Your task to perform on an android device: Clear the shopping cart on walmart. Add "usb-c to usb-b" to the cart on walmart, then select checkout. Image 0: 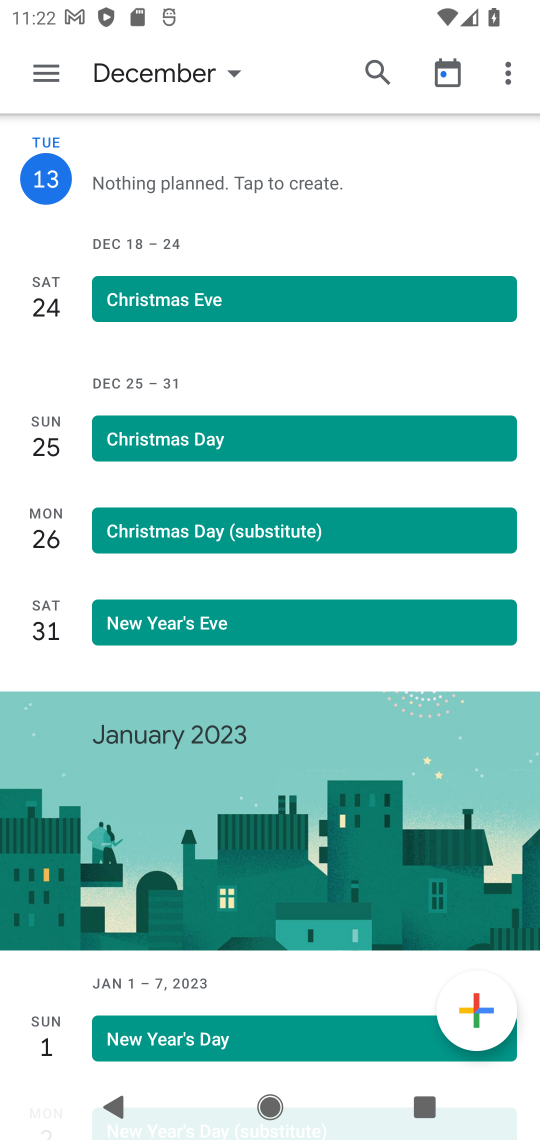
Step 0: press home button
Your task to perform on an android device: Clear the shopping cart on walmart. Add "usb-c to usb-b" to the cart on walmart, then select checkout. Image 1: 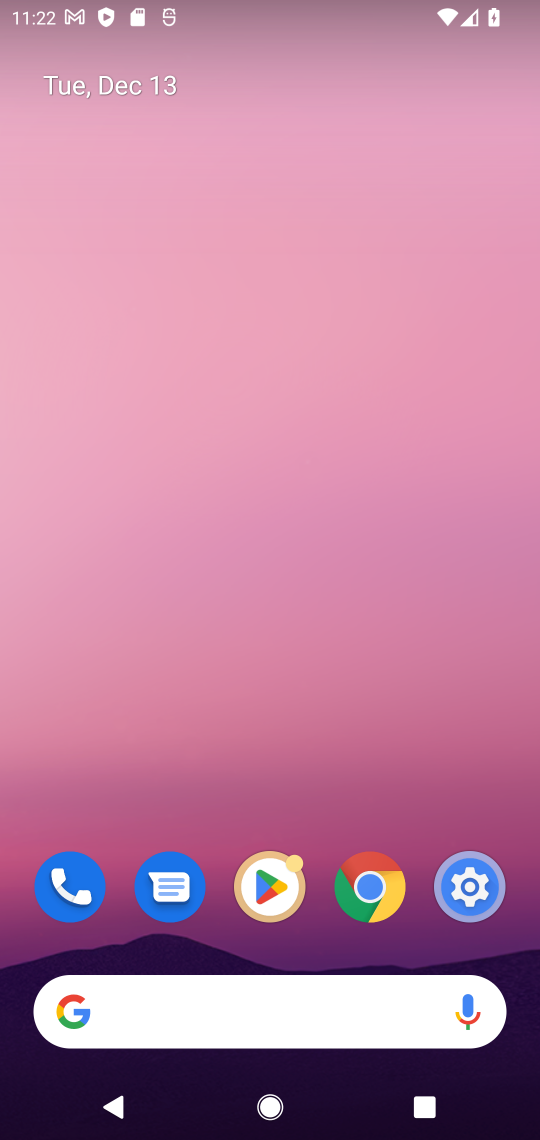
Step 1: drag from (295, 966) to (354, 571)
Your task to perform on an android device: Clear the shopping cart on walmart. Add "usb-c to usb-b" to the cart on walmart, then select checkout. Image 2: 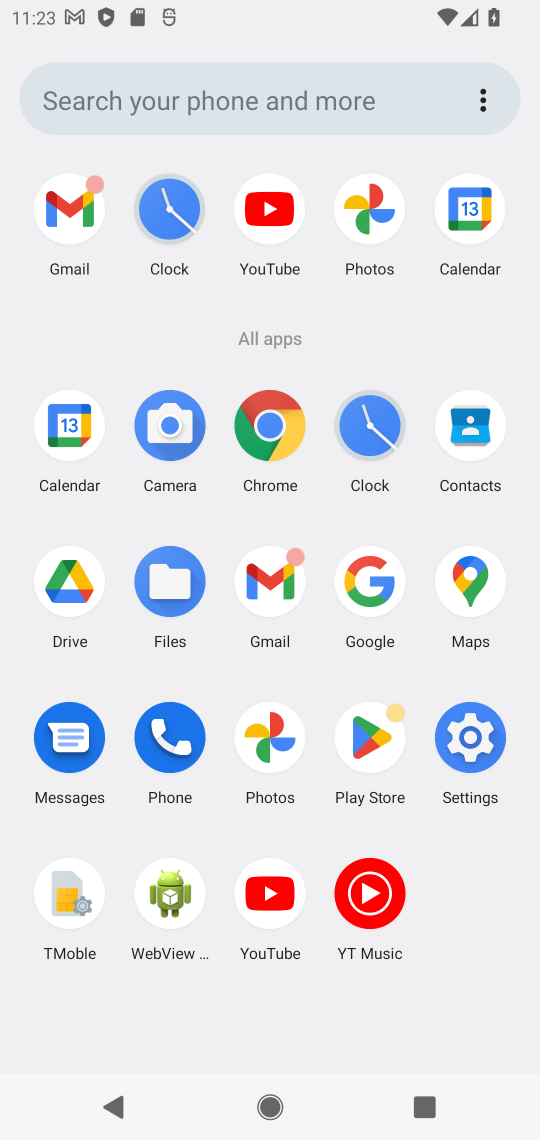
Step 2: click (382, 589)
Your task to perform on an android device: Clear the shopping cart on walmart. Add "usb-c to usb-b" to the cart on walmart, then select checkout. Image 3: 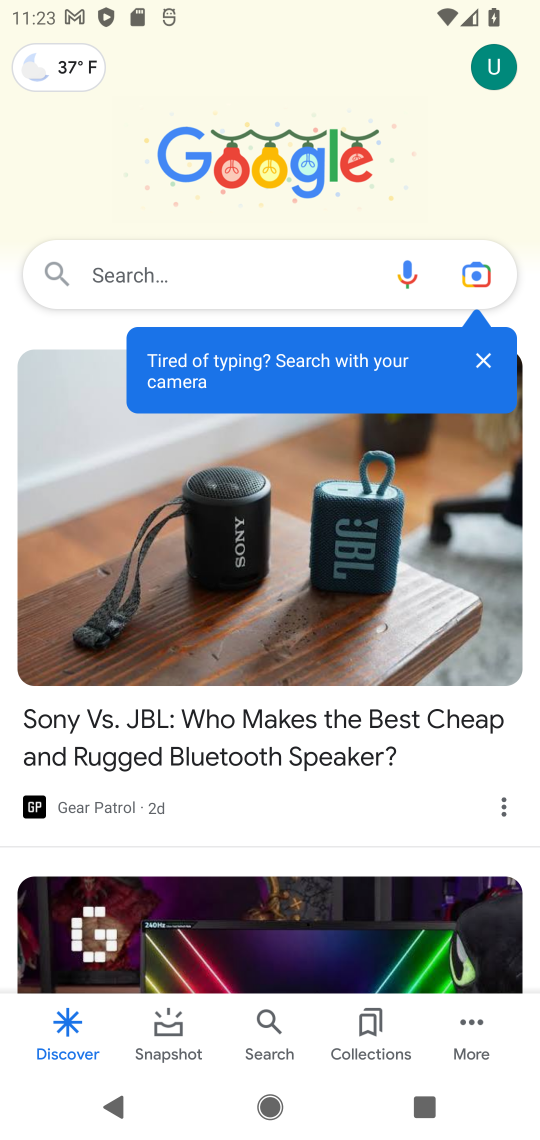
Step 3: click (152, 279)
Your task to perform on an android device: Clear the shopping cart on walmart. Add "usb-c to usb-b" to the cart on walmart, then select checkout. Image 4: 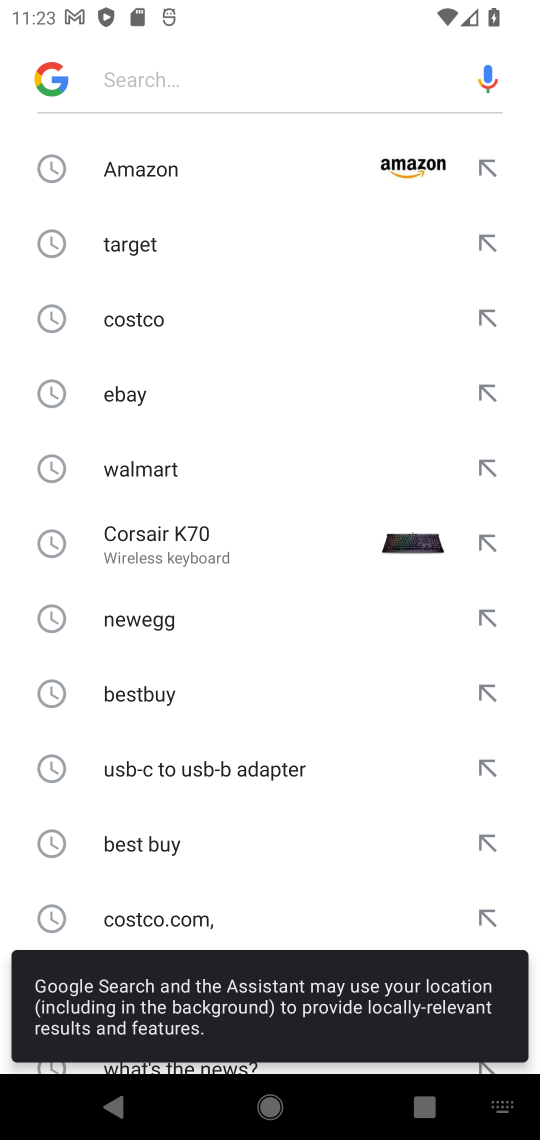
Step 4: click (138, 467)
Your task to perform on an android device: Clear the shopping cart on walmart. Add "usb-c to usb-b" to the cart on walmart, then select checkout. Image 5: 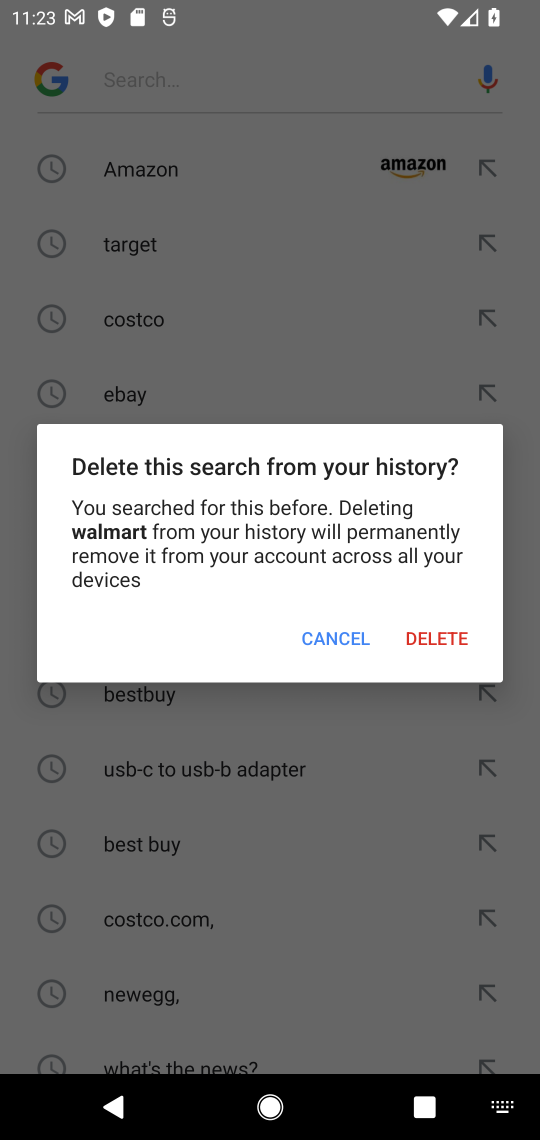
Step 5: click (308, 641)
Your task to perform on an android device: Clear the shopping cart on walmart. Add "usb-c to usb-b" to the cart on walmart, then select checkout. Image 6: 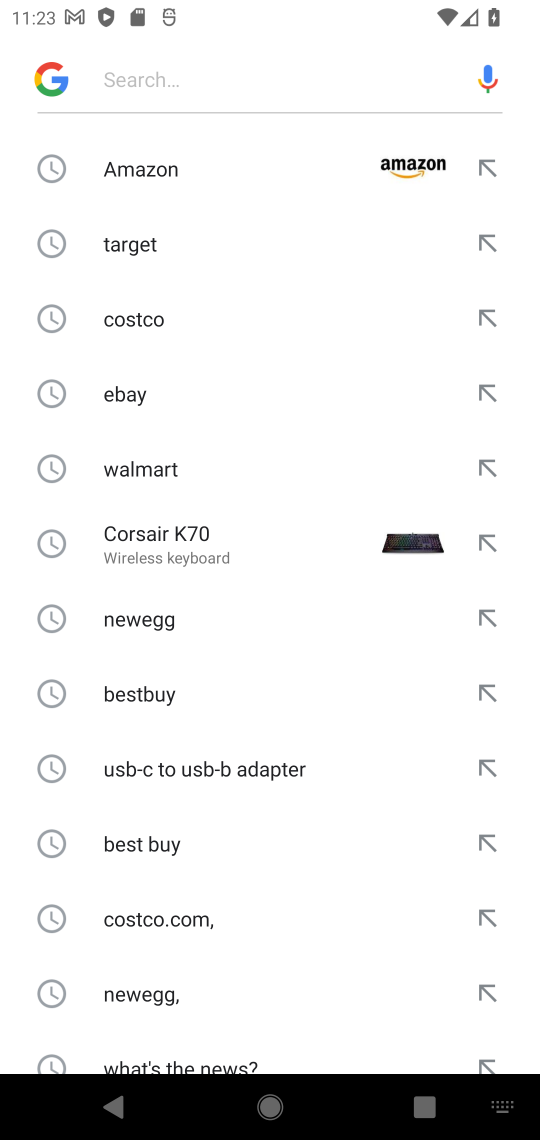
Step 6: click (139, 465)
Your task to perform on an android device: Clear the shopping cart on walmart. Add "usb-c to usb-b" to the cart on walmart, then select checkout. Image 7: 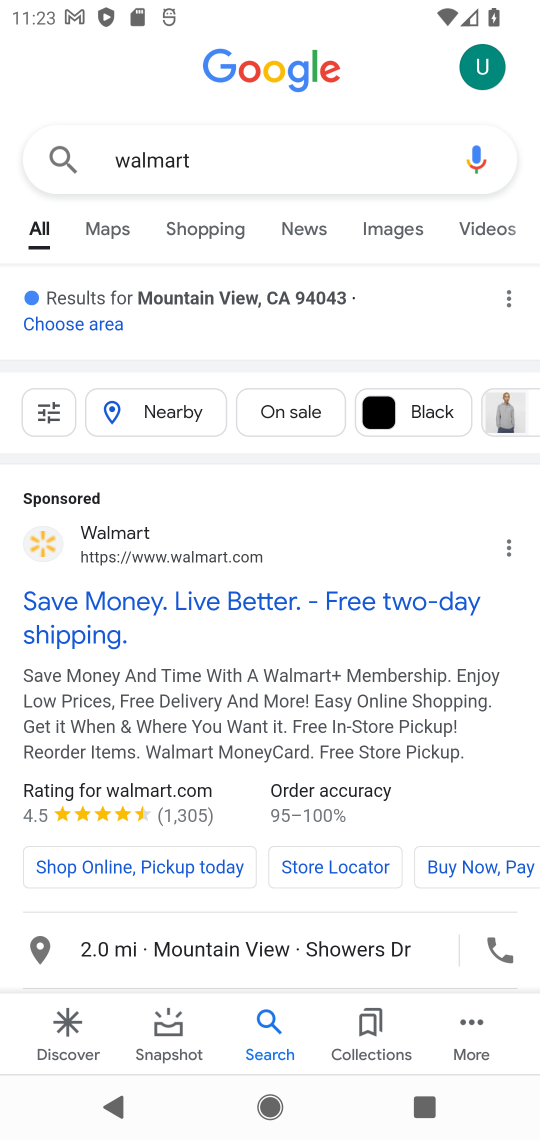
Step 7: click (126, 614)
Your task to perform on an android device: Clear the shopping cart on walmart. Add "usb-c to usb-b" to the cart on walmart, then select checkout. Image 8: 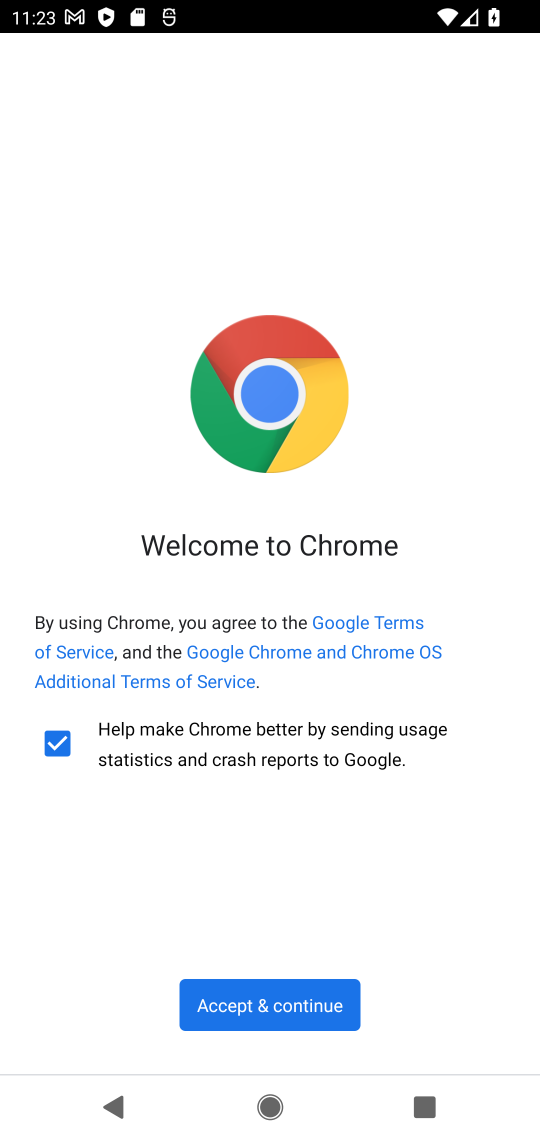
Step 8: click (291, 999)
Your task to perform on an android device: Clear the shopping cart on walmart. Add "usb-c to usb-b" to the cart on walmart, then select checkout. Image 9: 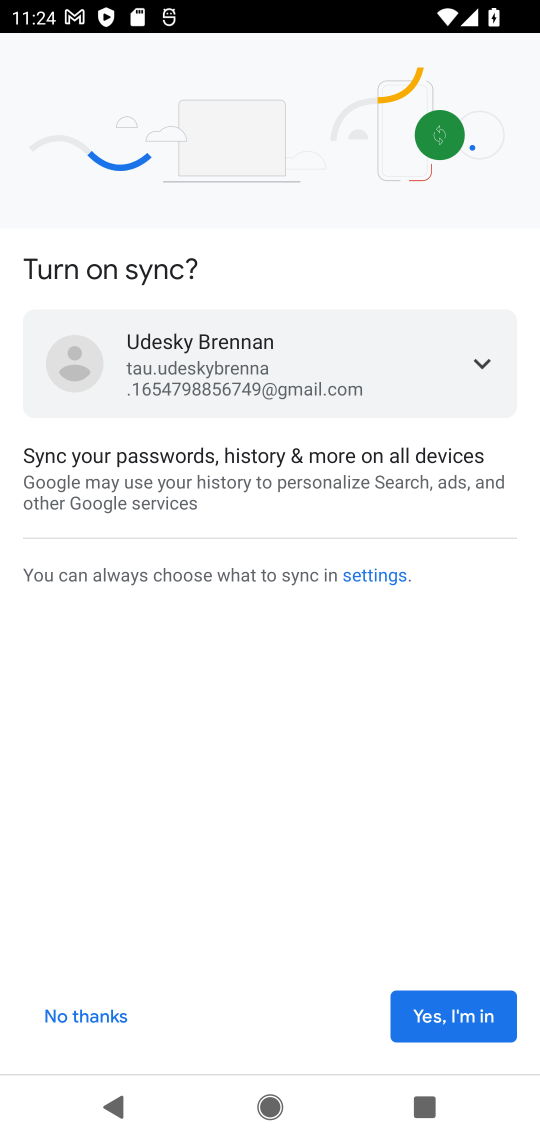
Step 9: click (482, 1015)
Your task to perform on an android device: Clear the shopping cart on walmart. Add "usb-c to usb-b" to the cart on walmart, then select checkout. Image 10: 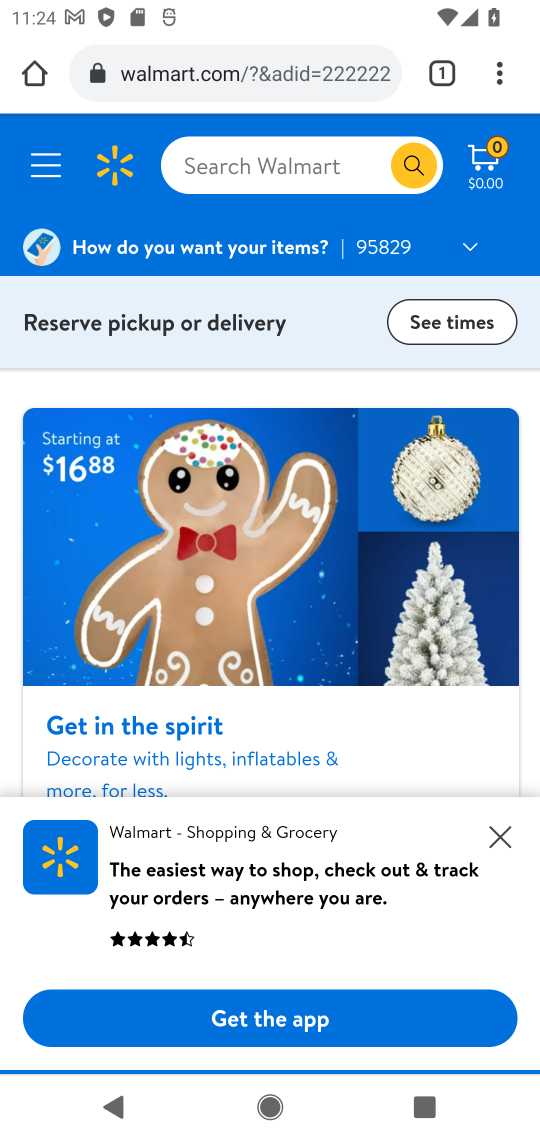
Step 10: click (220, 167)
Your task to perform on an android device: Clear the shopping cart on walmart. Add "usb-c to usb-b" to the cart on walmart, then select checkout. Image 11: 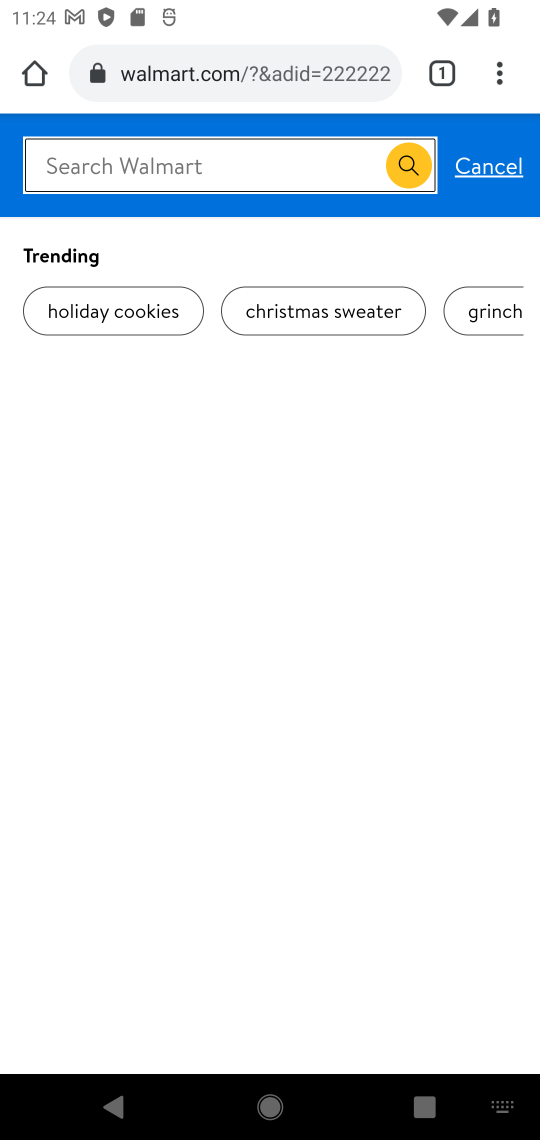
Step 11: type "usb-c to usb-b"
Your task to perform on an android device: Clear the shopping cart on walmart. Add "usb-c to usb-b" to the cart on walmart, then select checkout. Image 12: 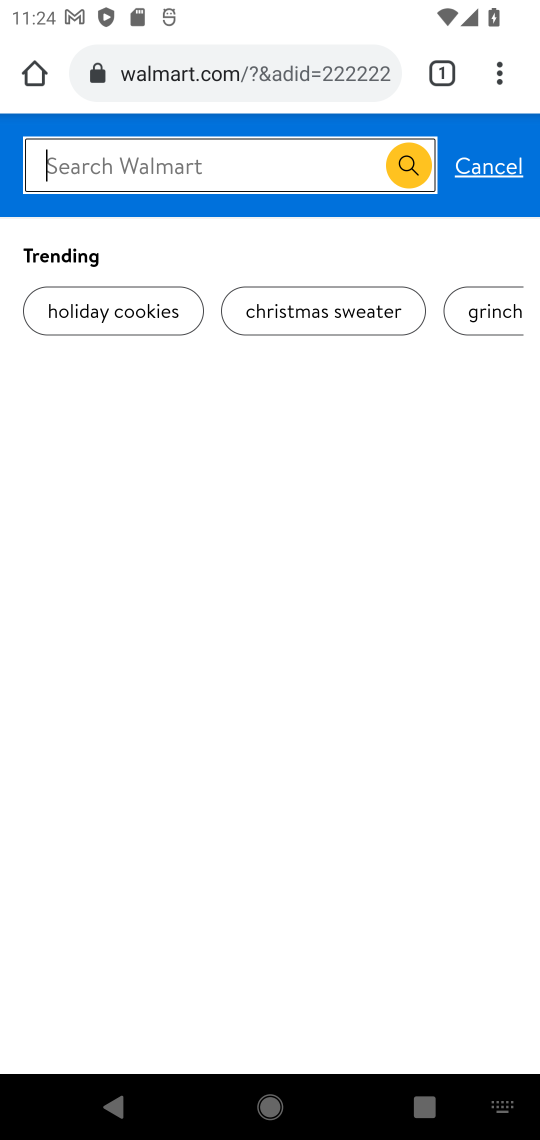
Step 12: click (411, 169)
Your task to perform on an android device: Clear the shopping cart on walmart. Add "usb-c to usb-b" to the cart on walmart, then select checkout. Image 13: 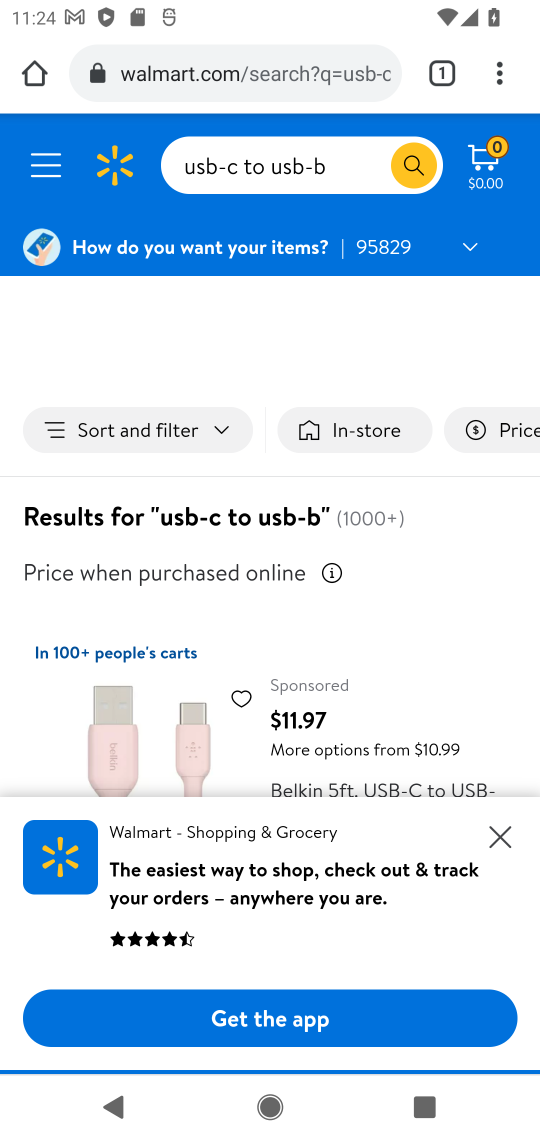
Step 13: click (506, 837)
Your task to perform on an android device: Clear the shopping cart on walmart. Add "usb-c to usb-b" to the cart on walmart, then select checkout. Image 14: 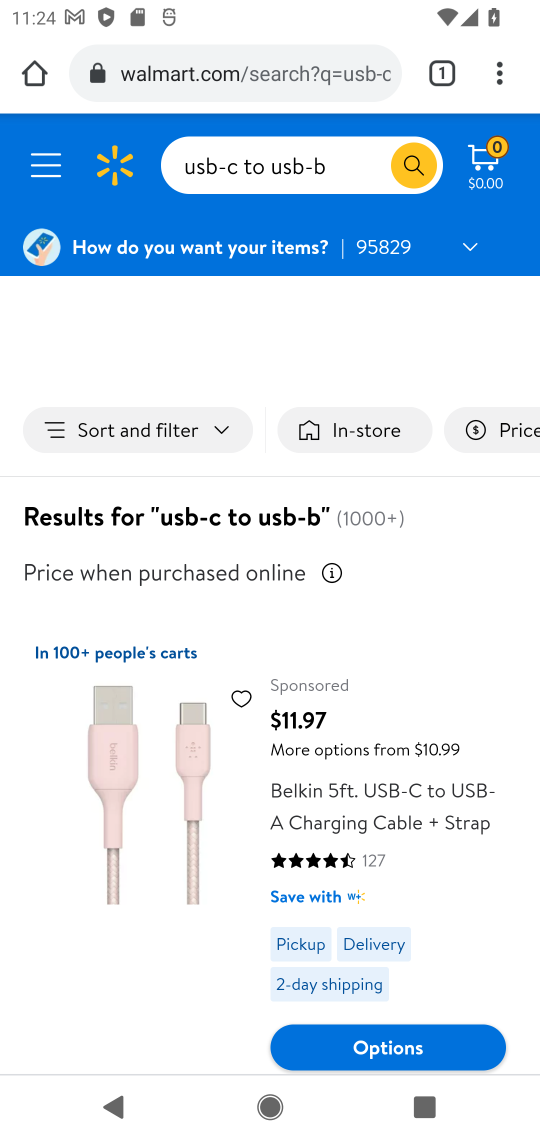
Step 14: drag from (370, 908) to (378, 643)
Your task to perform on an android device: Clear the shopping cart on walmart. Add "usb-c to usb-b" to the cart on walmart, then select checkout. Image 15: 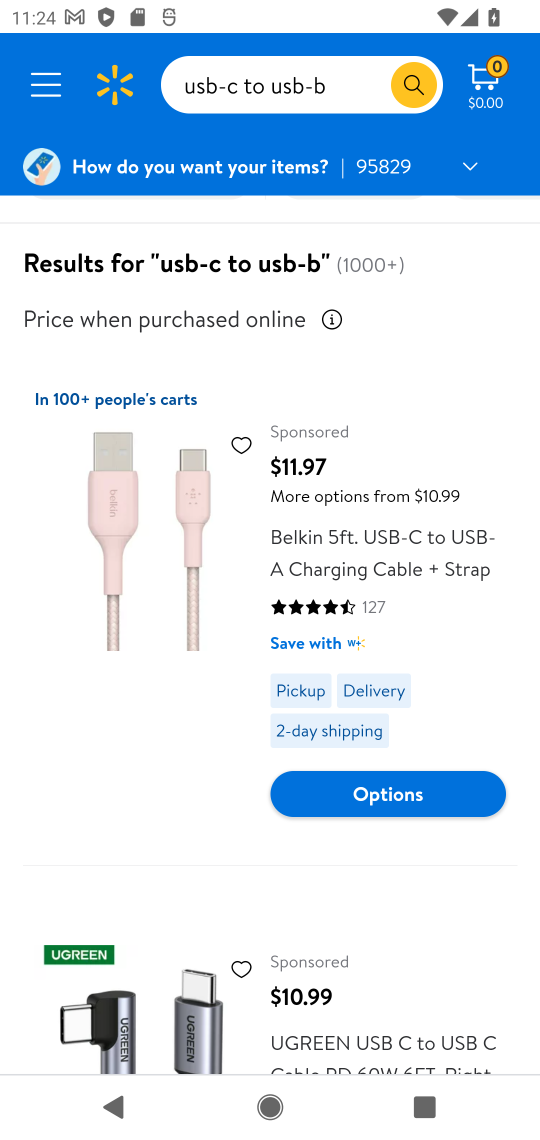
Step 15: click (401, 795)
Your task to perform on an android device: Clear the shopping cart on walmart. Add "usb-c to usb-b" to the cart on walmart, then select checkout. Image 16: 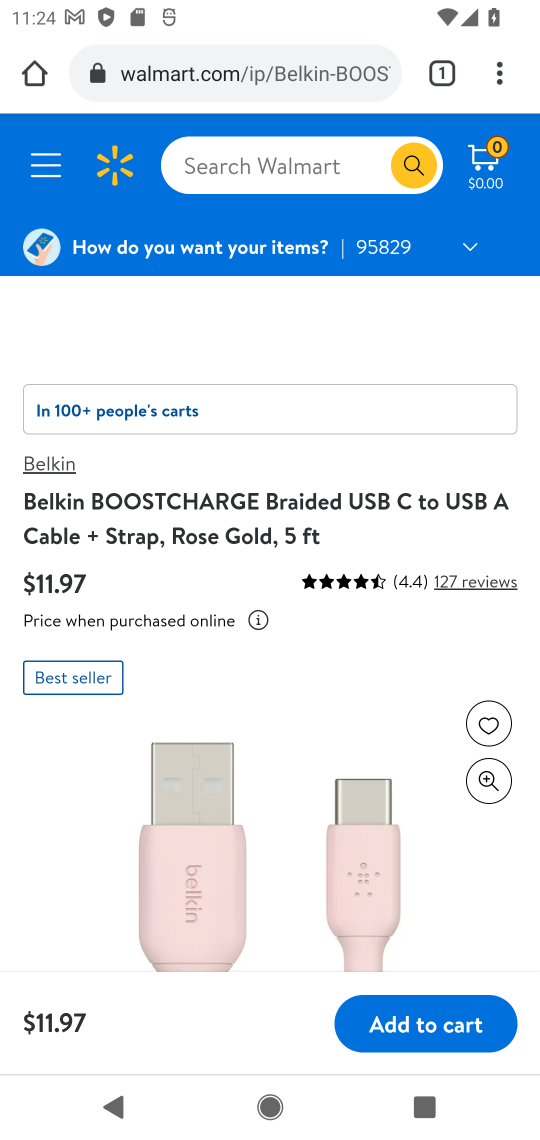
Step 16: click (453, 1033)
Your task to perform on an android device: Clear the shopping cart on walmart. Add "usb-c to usb-b" to the cart on walmart, then select checkout. Image 17: 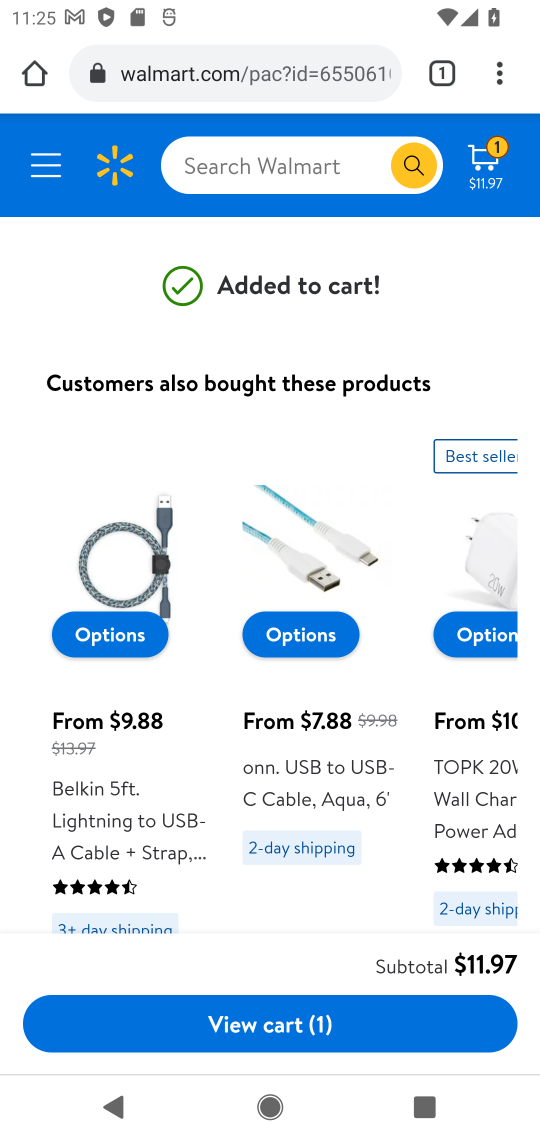
Step 17: click (482, 162)
Your task to perform on an android device: Clear the shopping cart on walmart. Add "usb-c to usb-b" to the cart on walmart, then select checkout. Image 18: 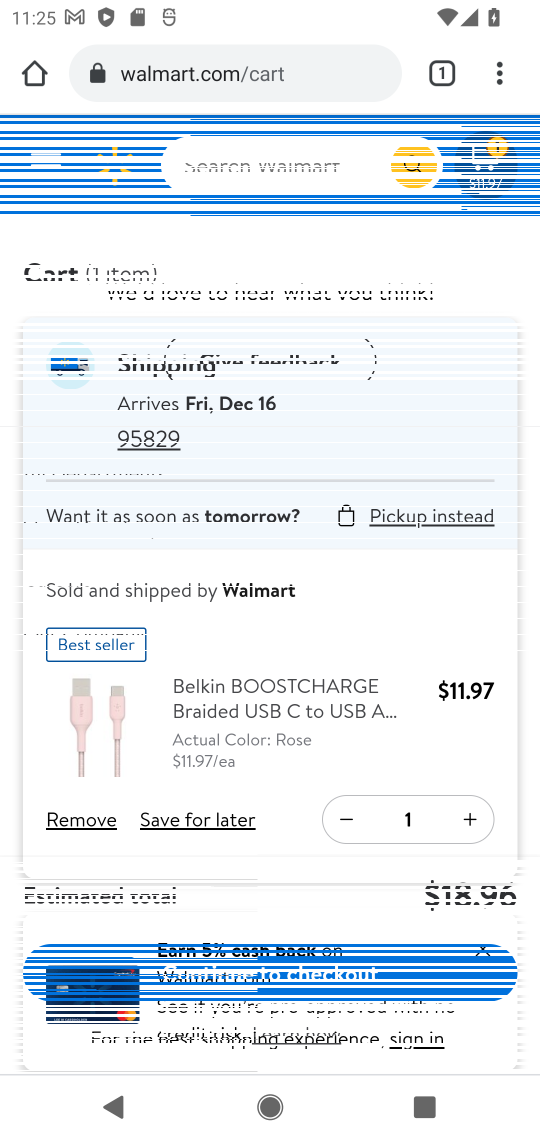
Step 18: drag from (282, 893) to (301, 570)
Your task to perform on an android device: Clear the shopping cart on walmart. Add "usb-c to usb-b" to the cart on walmart, then select checkout. Image 19: 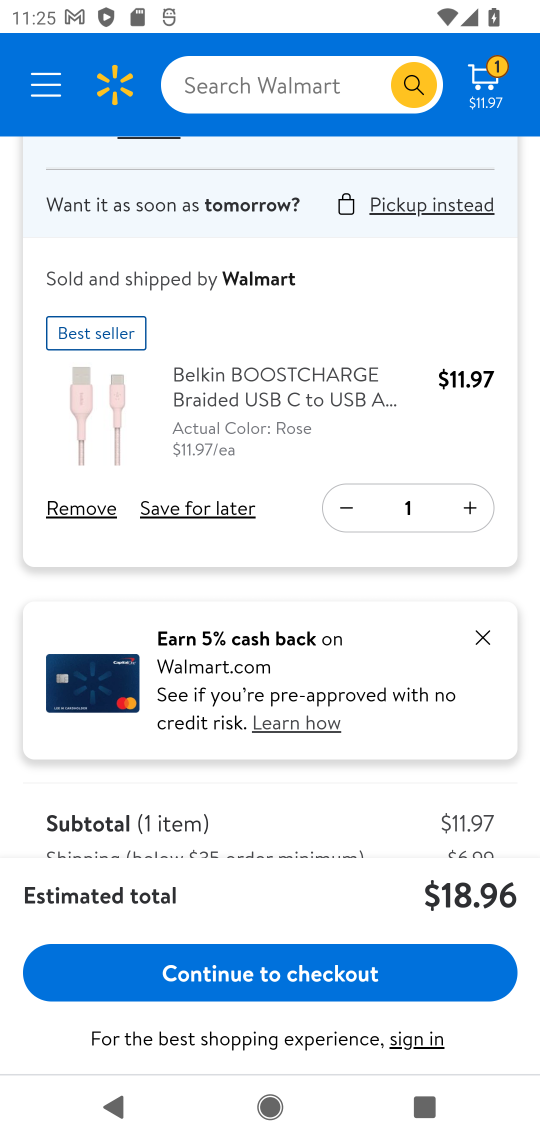
Step 19: click (276, 977)
Your task to perform on an android device: Clear the shopping cart on walmart. Add "usb-c to usb-b" to the cart on walmart, then select checkout. Image 20: 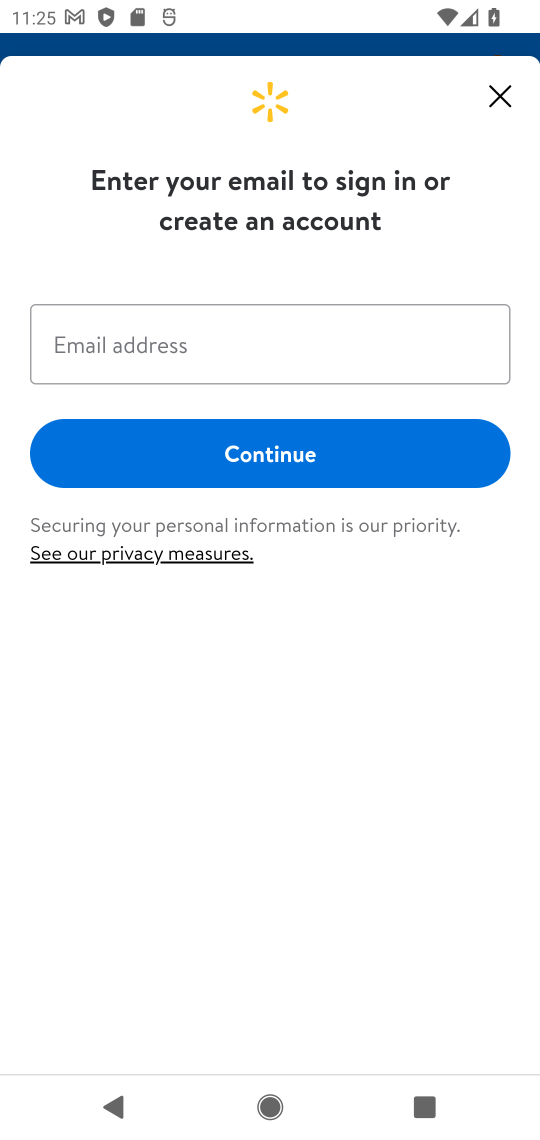
Step 20: task complete